Your task to perform on an android device: open device folders in google photos Image 0: 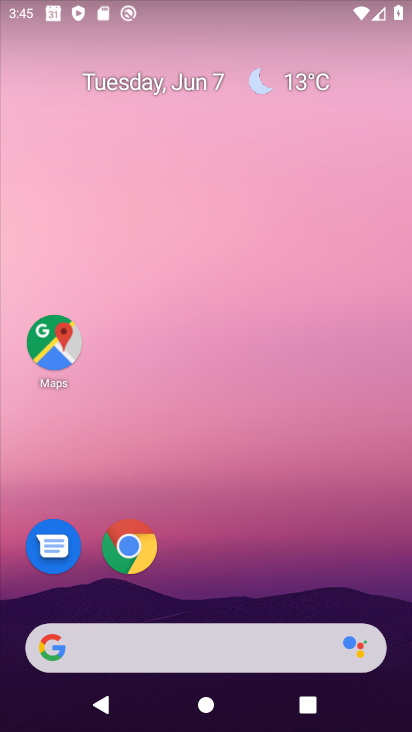
Step 0: drag from (196, 582) to (182, 94)
Your task to perform on an android device: open device folders in google photos Image 1: 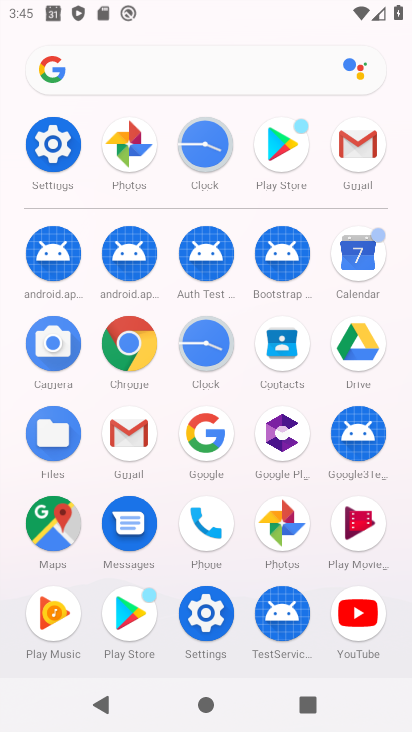
Step 1: click (136, 148)
Your task to perform on an android device: open device folders in google photos Image 2: 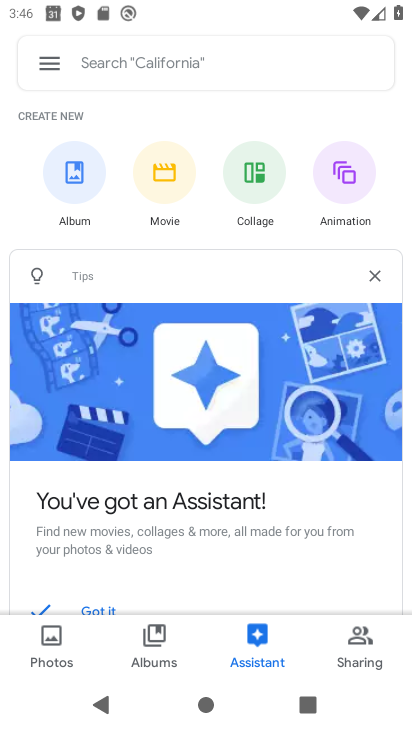
Step 2: click (49, 62)
Your task to perform on an android device: open device folders in google photos Image 3: 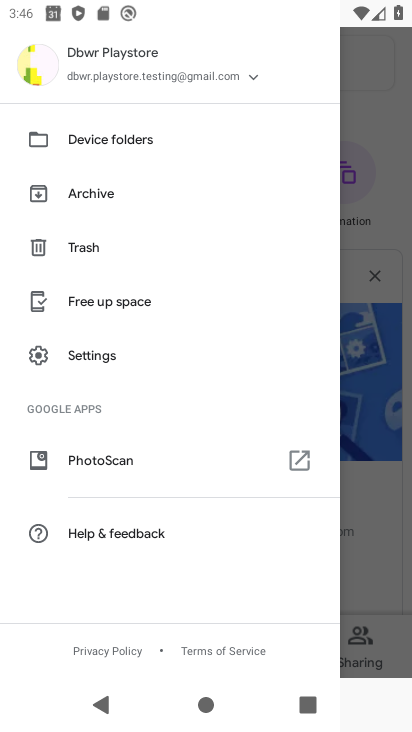
Step 3: click (93, 141)
Your task to perform on an android device: open device folders in google photos Image 4: 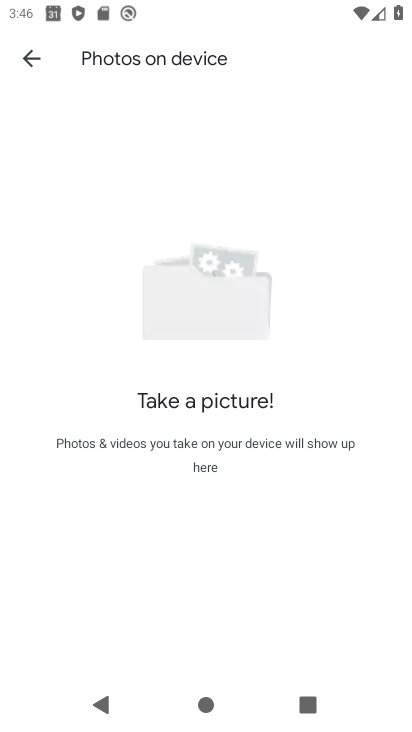
Step 4: task complete